Your task to perform on an android device: Empty the shopping cart on walmart.com. Add razer blade to the cart on walmart.com Image 0: 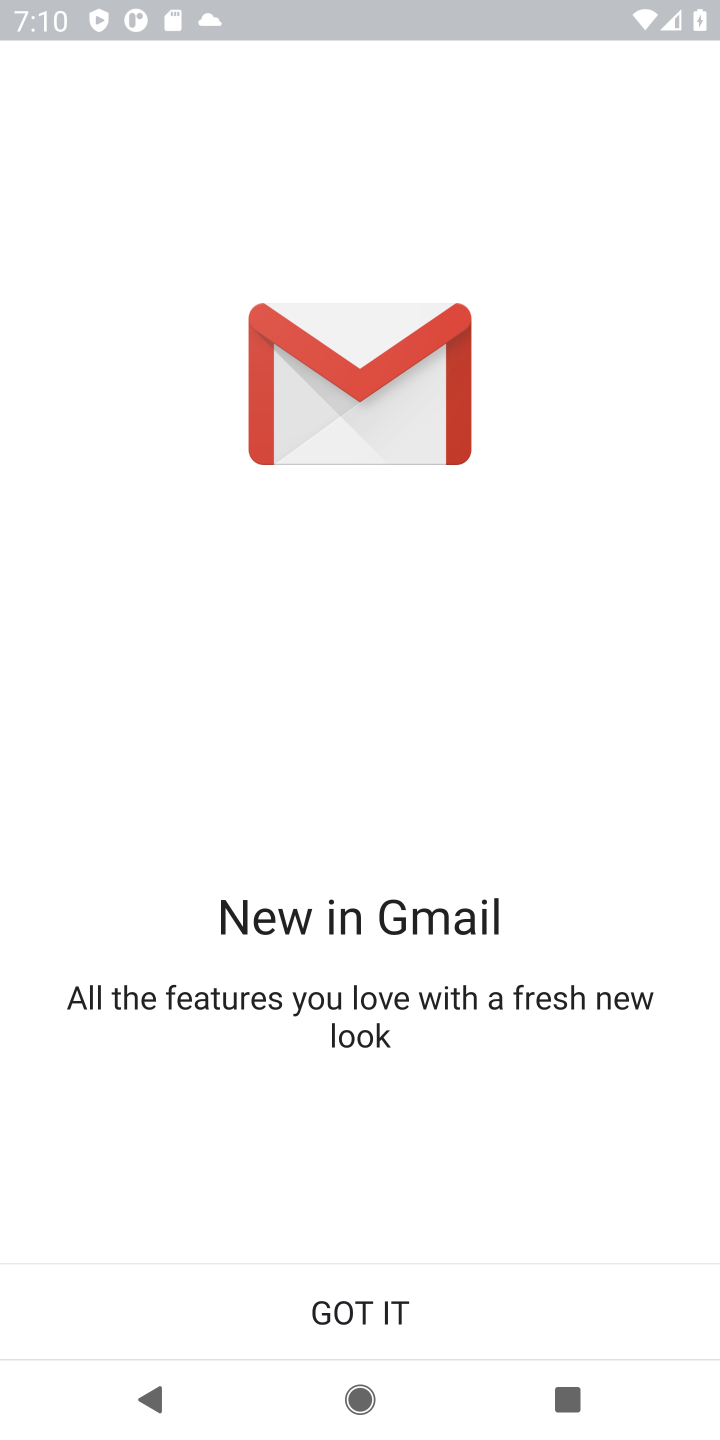
Step 0: press home button
Your task to perform on an android device: Empty the shopping cart on walmart.com. Add razer blade to the cart on walmart.com Image 1: 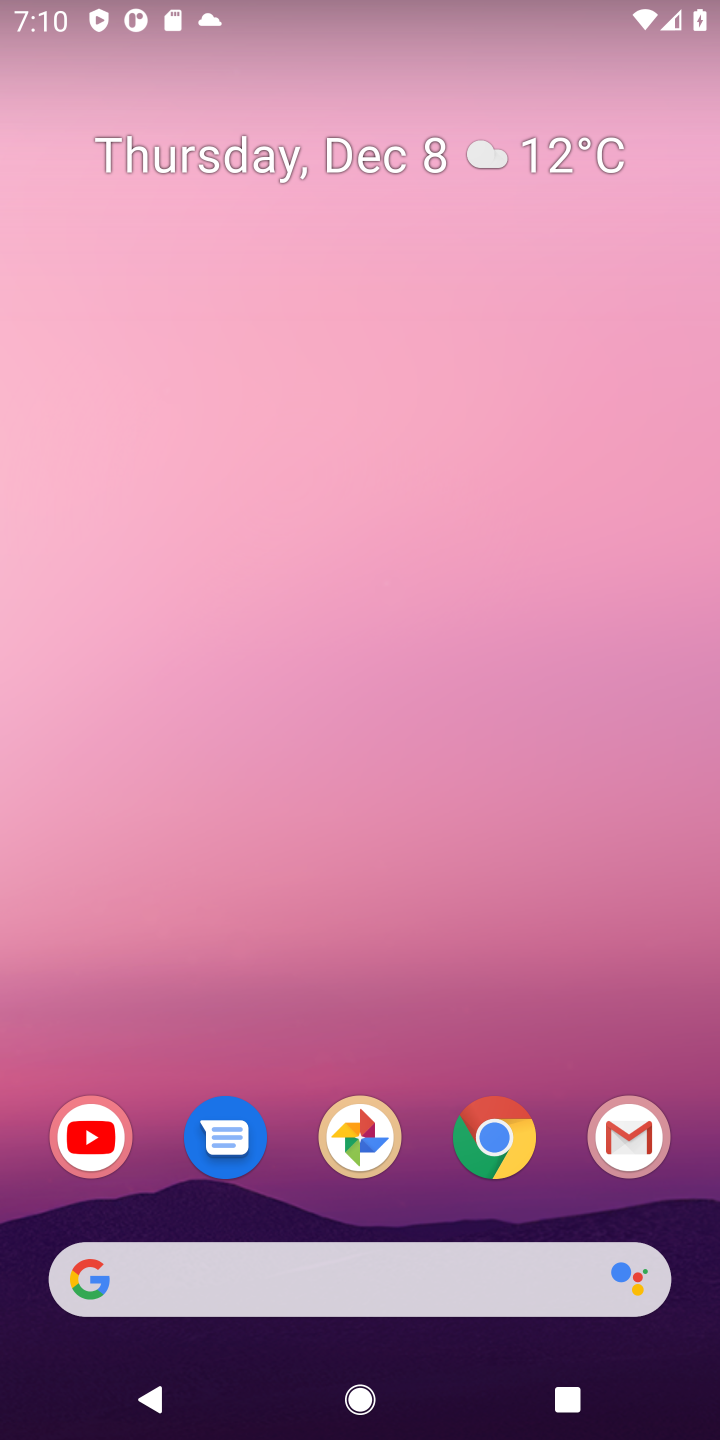
Step 1: click (476, 1129)
Your task to perform on an android device: Empty the shopping cart on walmart.com. Add razer blade to the cart on walmart.com Image 2: 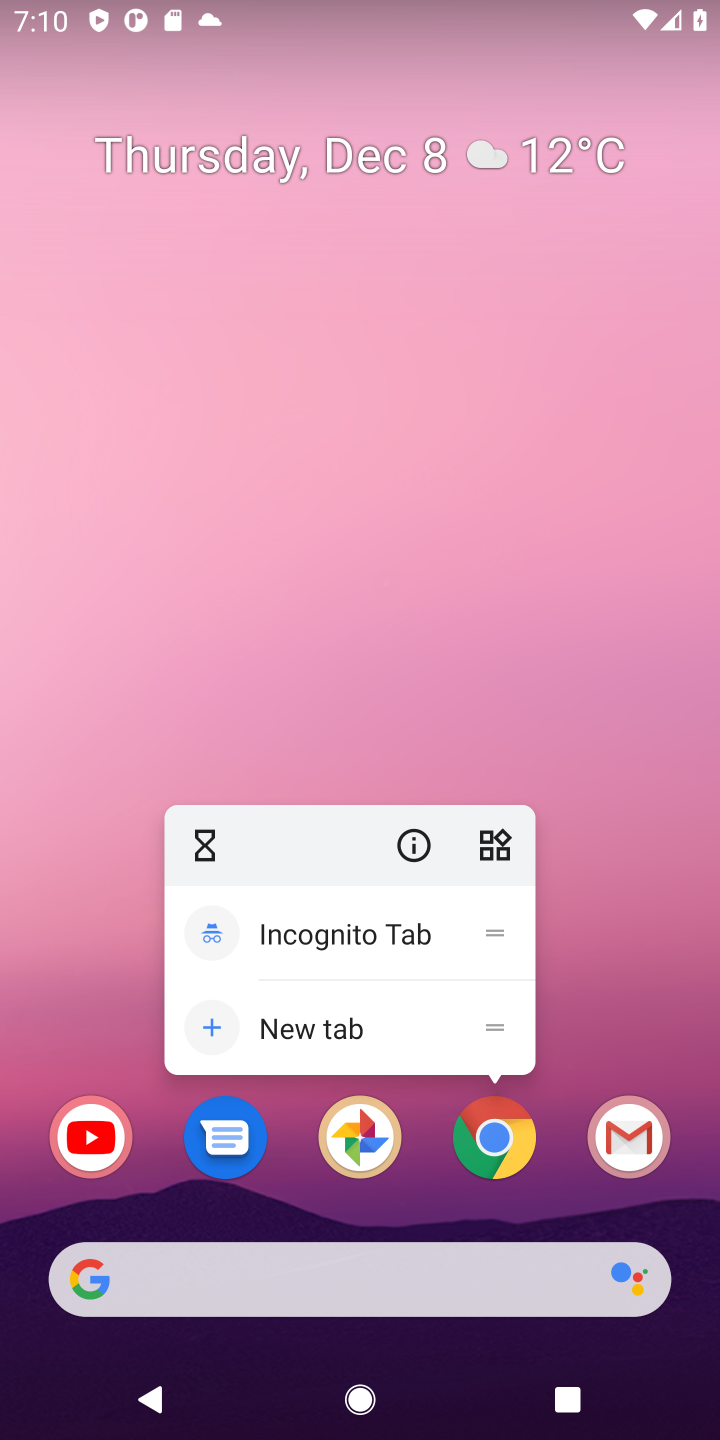
Step 2: click (506, 1141)
Your task to perform on an android device: Empty the shopping cart on walmart.com. Add razer blade to the cart on walmart.com Image 3: 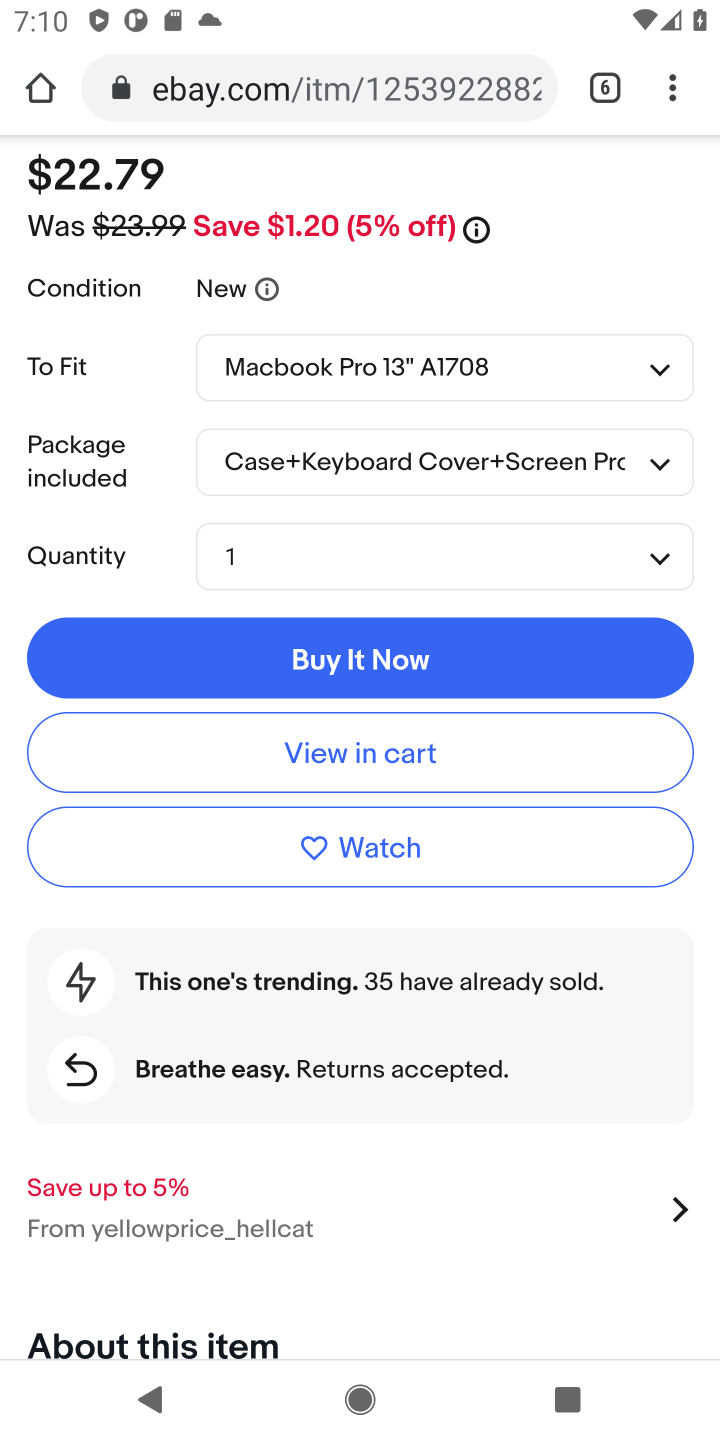
Step 3: click (599, 89)
Your task to perform on an android device: Empty the shopping cart on walmart.com. Add razer blade to the cart on walmart.com Image 4: 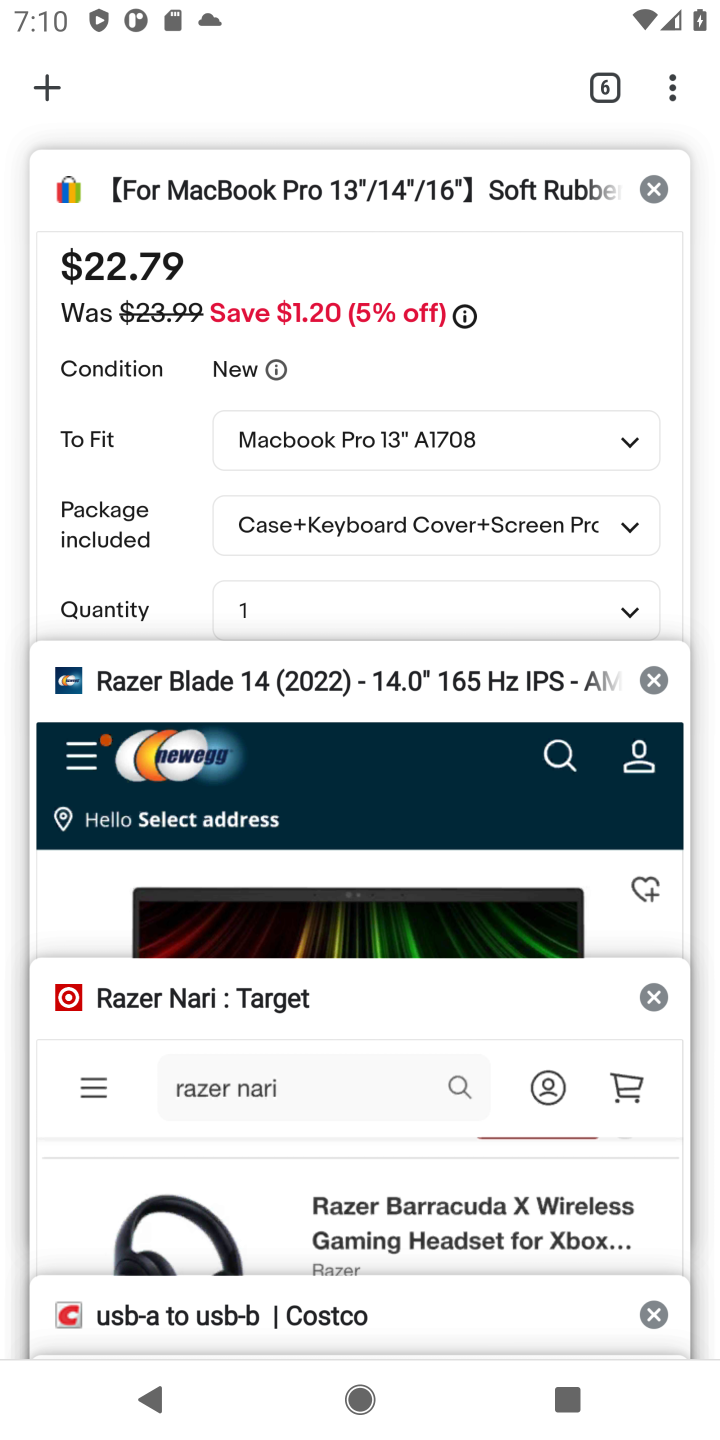
Step 4: click (48, 83)
Your task to perform on an android device: Empty the shopping cart on walmart.com. Add razer blade to the cart on walmart.com Image 5: 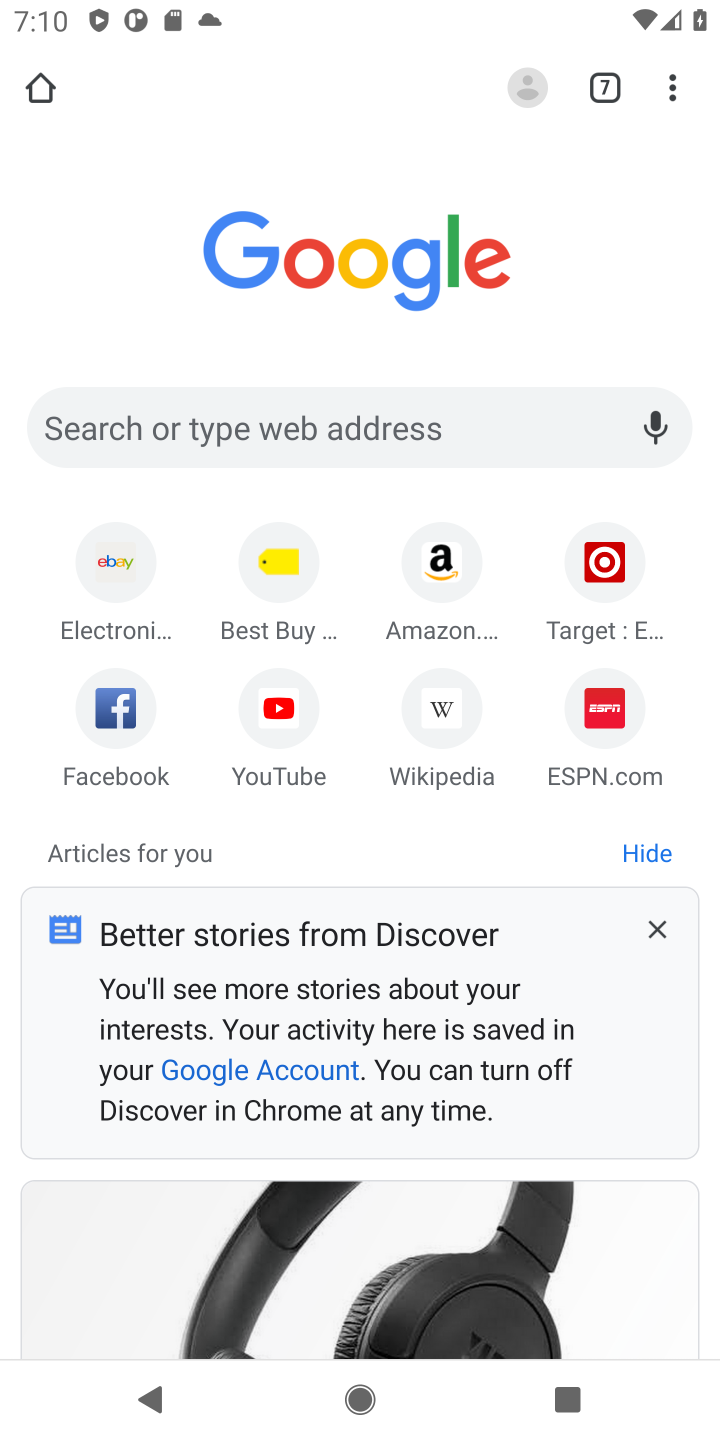
Step 5: click (253, 438)
Your task to perform on an android device: Empty the shopping cart on walmart.com. Add razer blade to the cart on walmart.com Image 6: 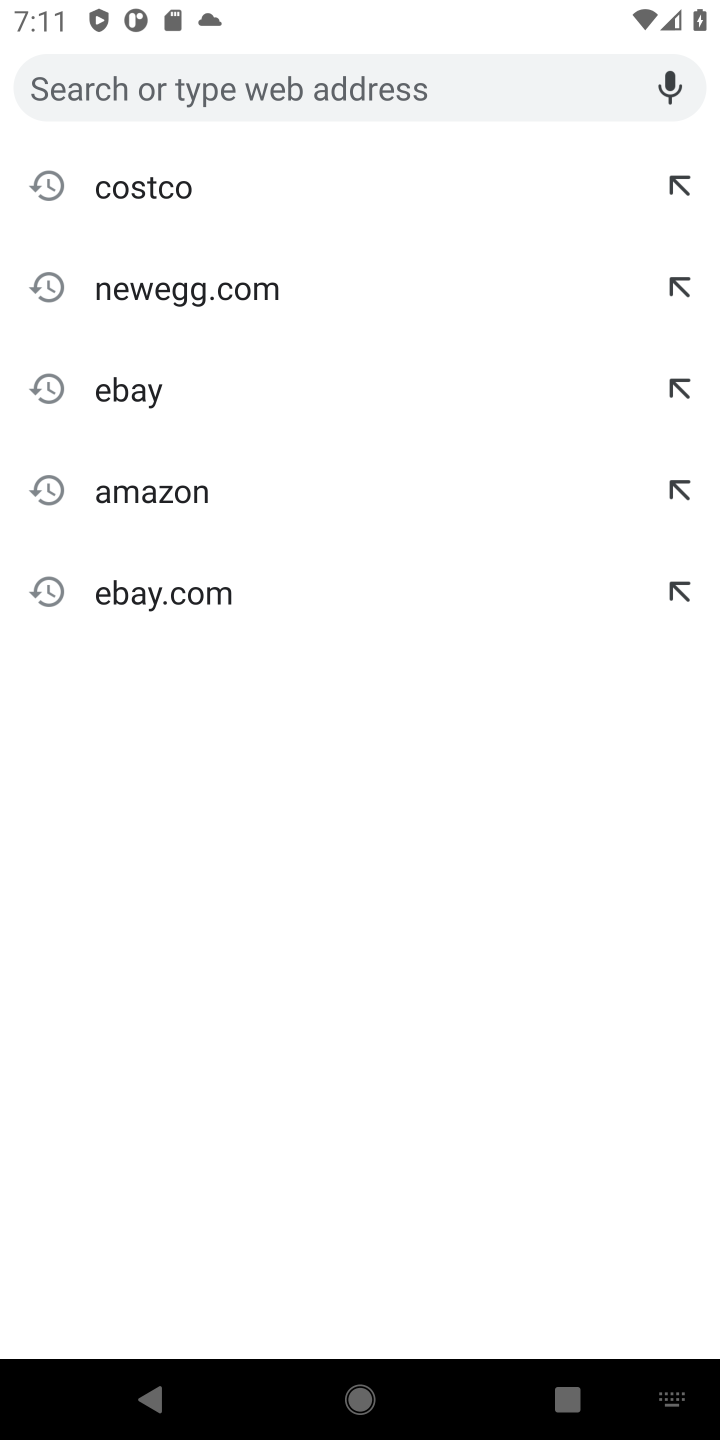
Step 6: type "walmart"
Your task to perform on an android device: Empty the shopping cart on walmart.com. Add razer blade to the cart on walmart.com Image 7: 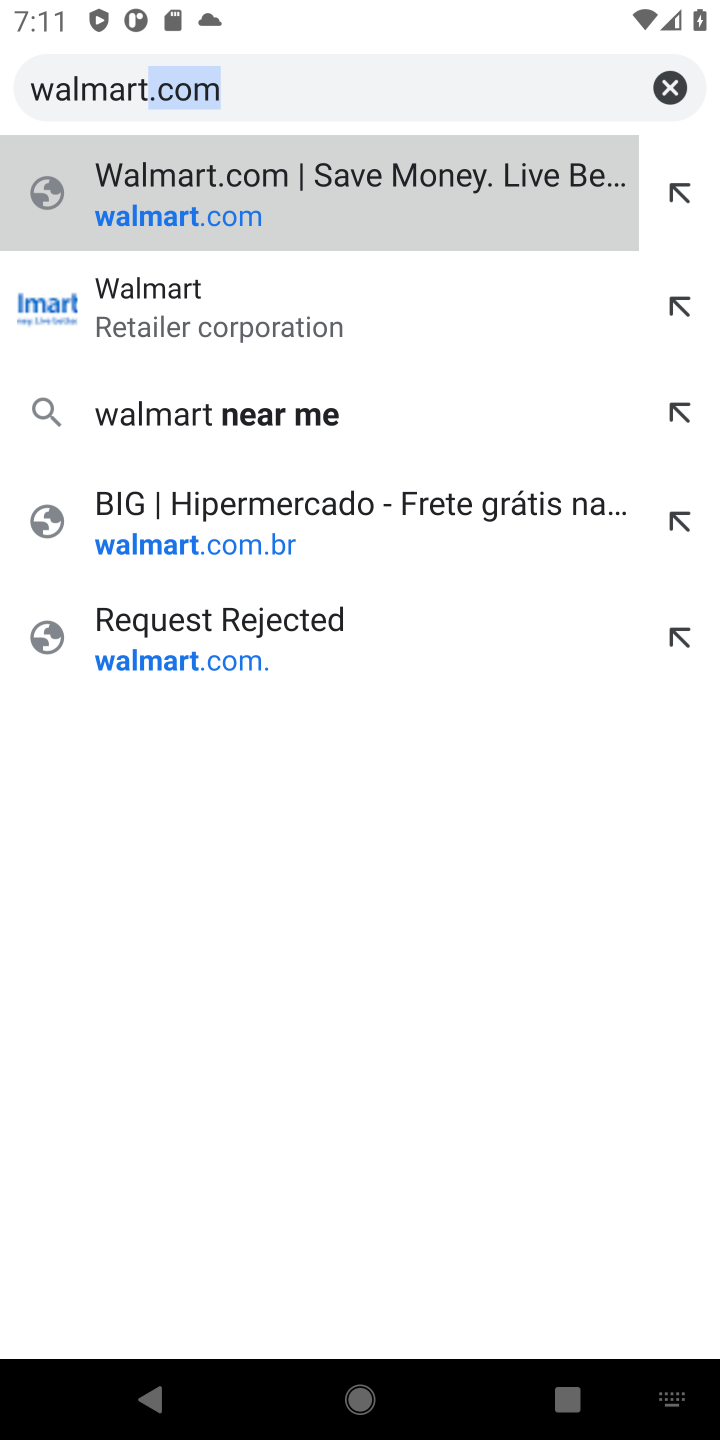
Step 7: click (288, 166)
Your task to perform on an android device: Empty the shopping cart on walmart.com. Add razer blade to the cart on walmart.com Image 8: 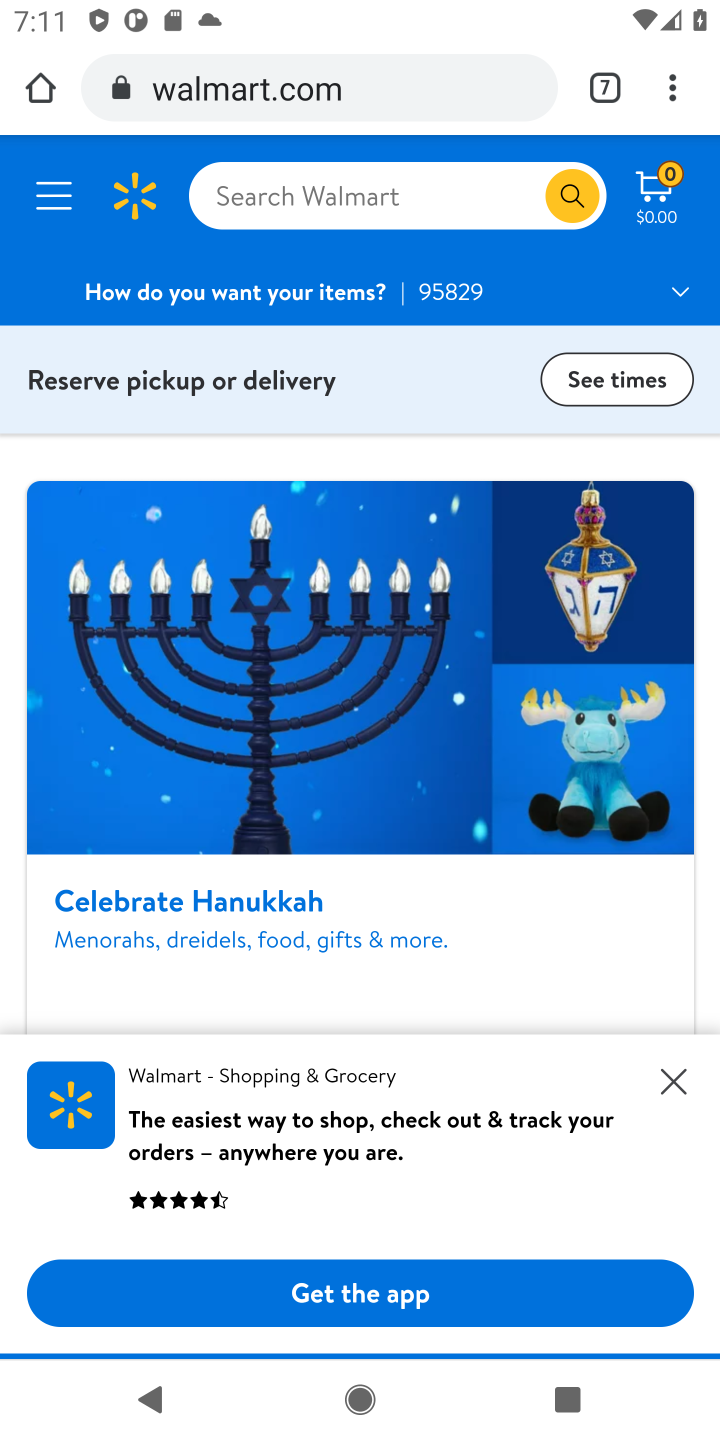
Step 8: click (302, 186)
Your task to perform on an android device: Empty the shopping cart on walmart.com. Add razer blade to the cart on walmart.com Image 9: 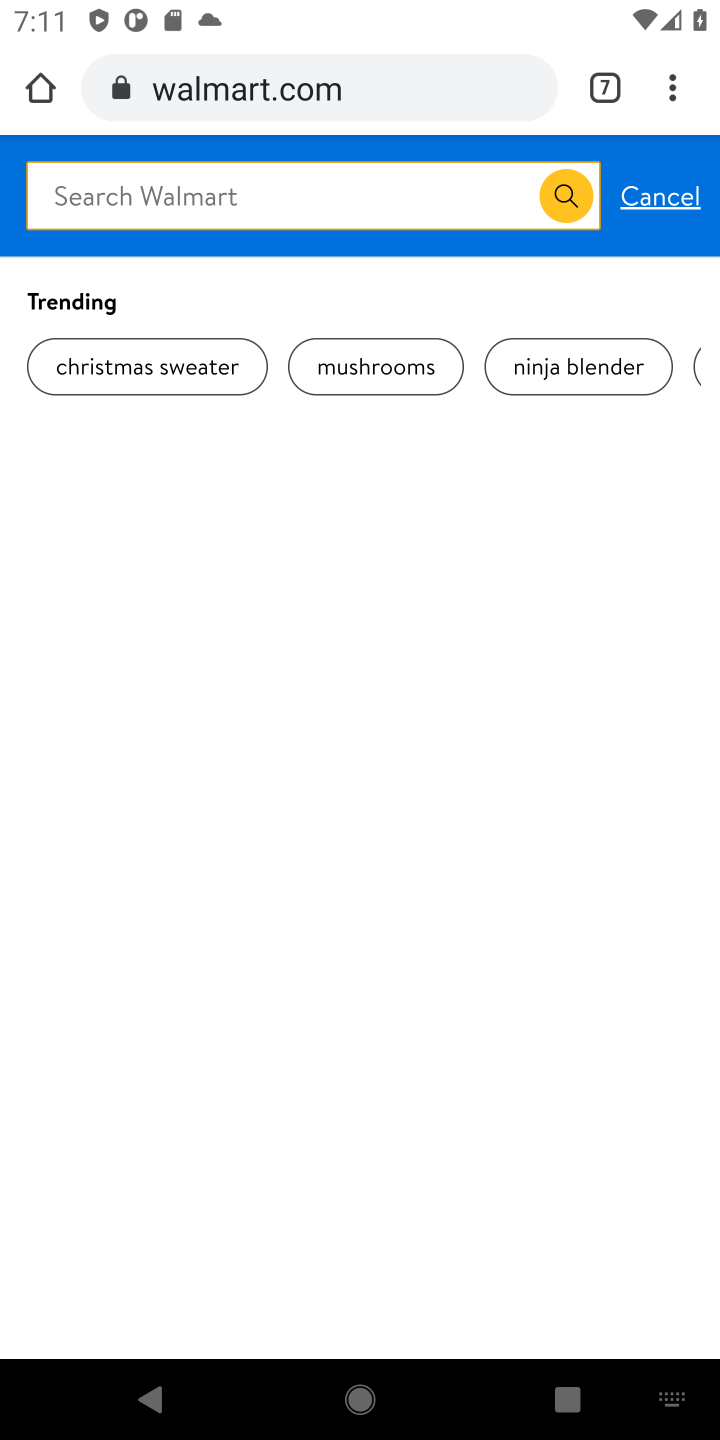
Step 9: type "razer blade"
Your task to perform on an android device: Empty the shopping cart on walmart.com. Add razer blade to the cart on walmart.com Image 10: 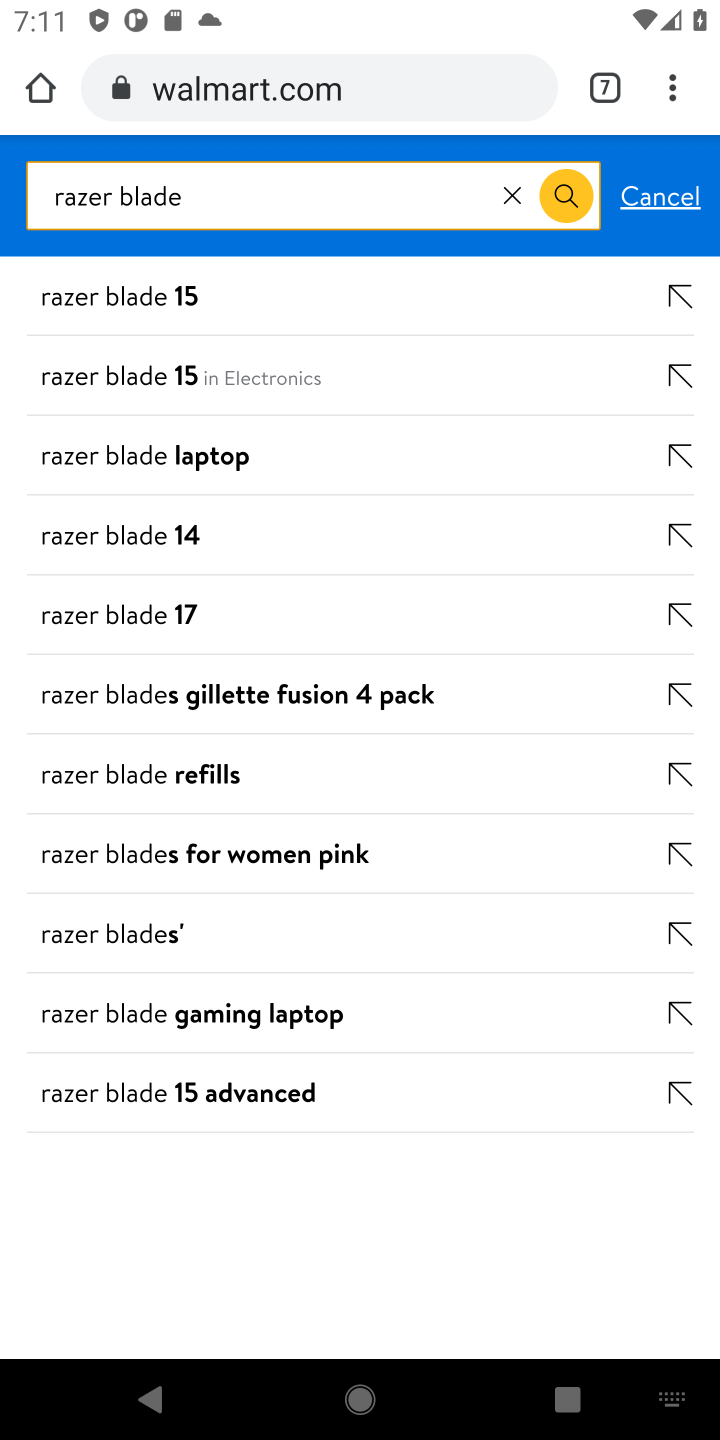
Step 10: click (114, 384)
Your task to perform on an android device: Empty the shopping cart on walmart.com. Add razer blade to the cart on walmart.com Image 11: 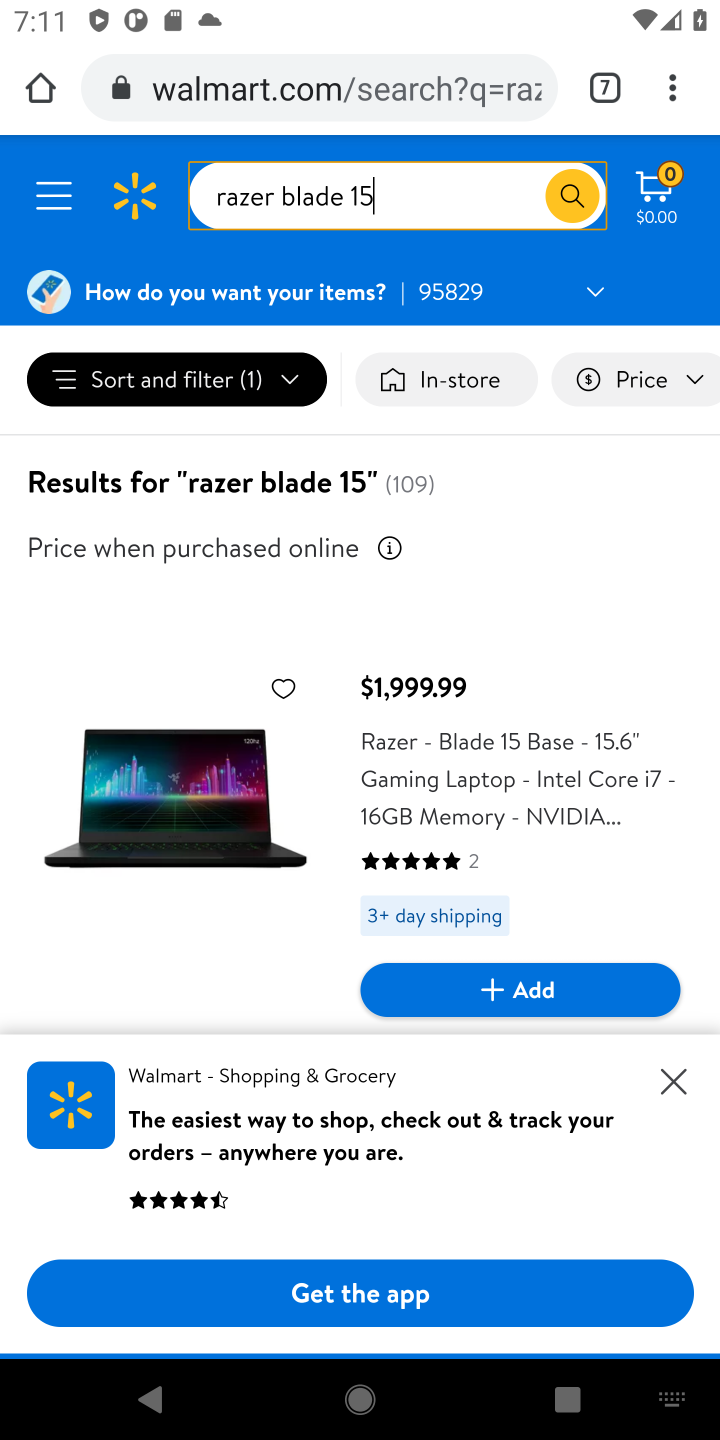
Step 11: click (674, 1082)
Your task to perform on an android device: Empty the shopping cart on walmart.com. Add razer blade to the cart on walmart.com Image 12: 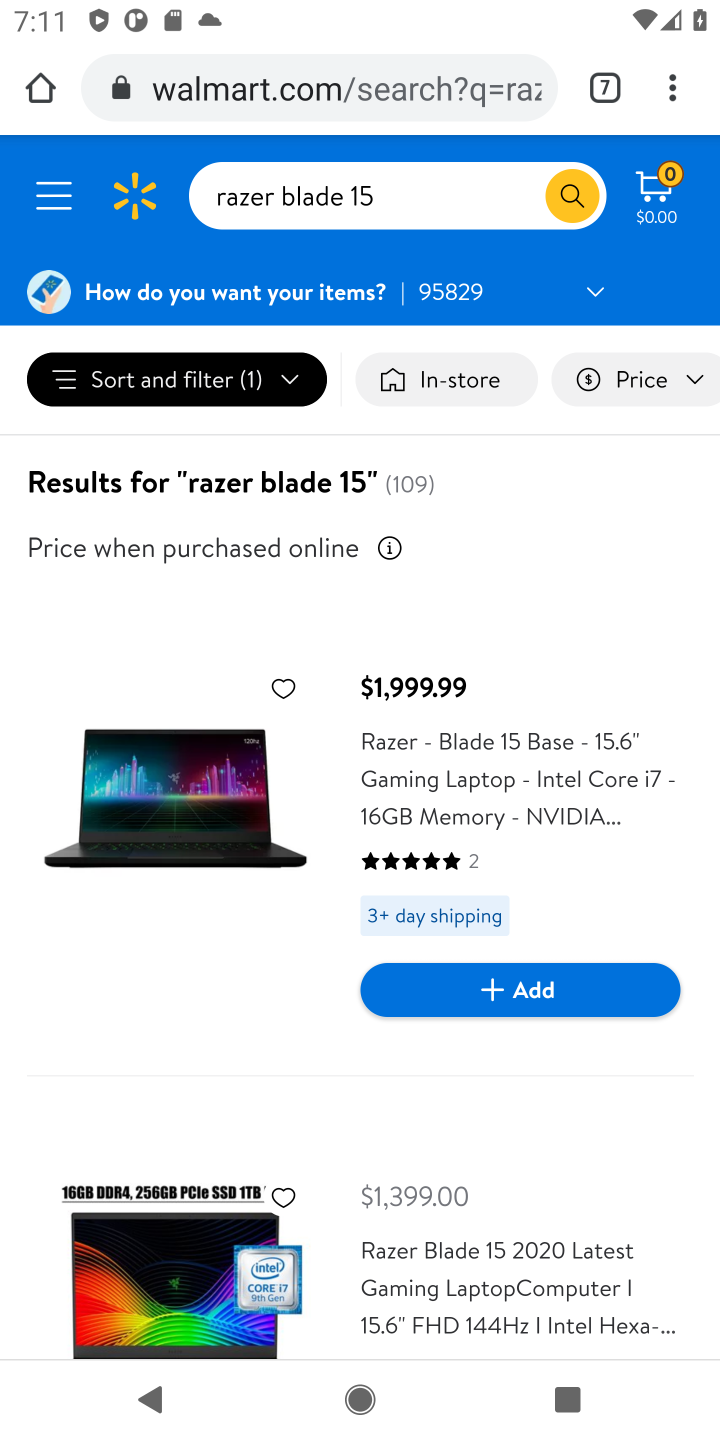
Step 12: click (561, 996)
Your task to perform on an android device: Empty the shopping cart on walmart.com. Add razer blade to the cart on walmart.com Image 13: 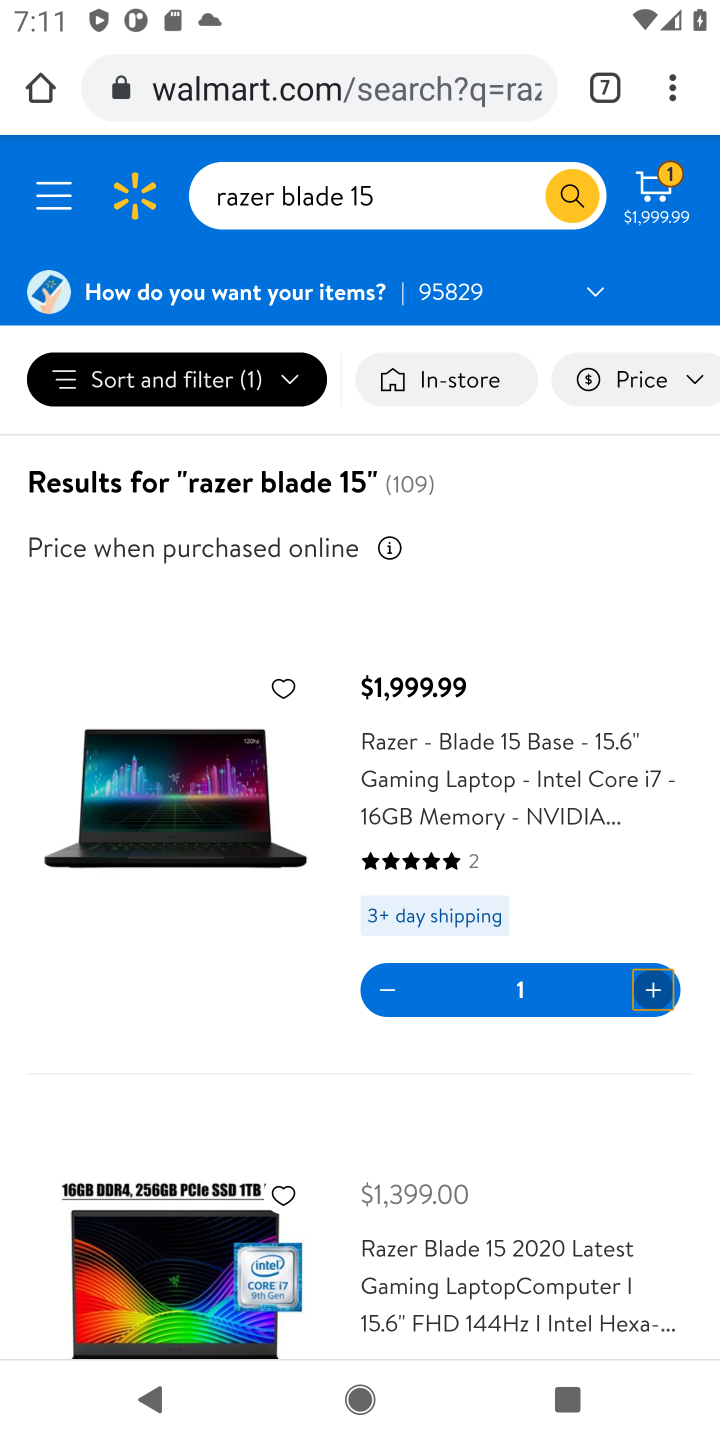
Step 13: task complete